Your task to perform on an android device: delete the emails in spam in the gmail app Image 0: 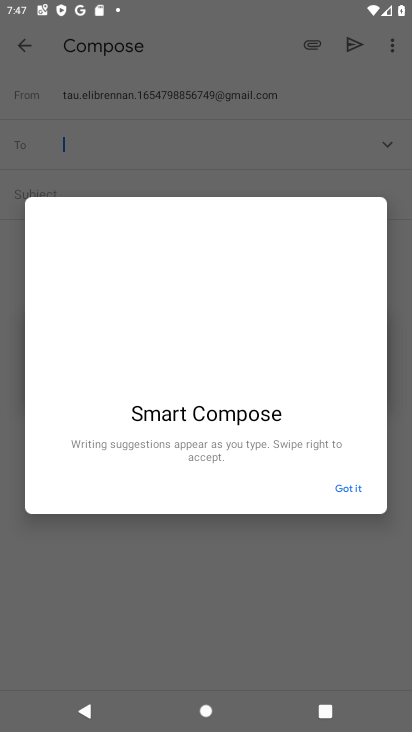
Step 0: click (163, 656)
Your task to perform on an android device: delete the emails in spam in the gmail app Image 1: 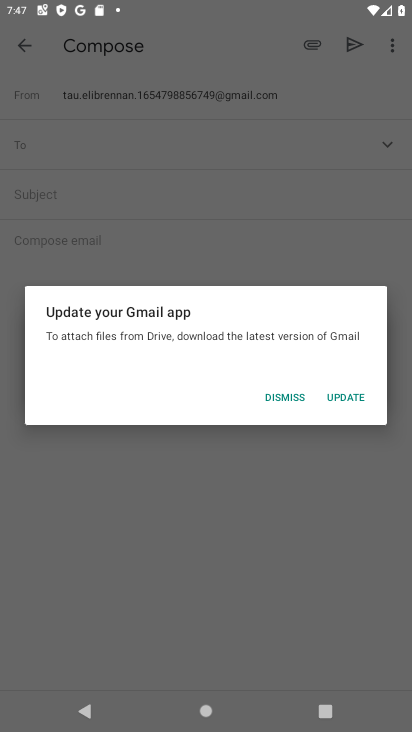
Step 1: press home button
Your task to perform on an android device: delete the emails in spam in the gmail app Image 2: 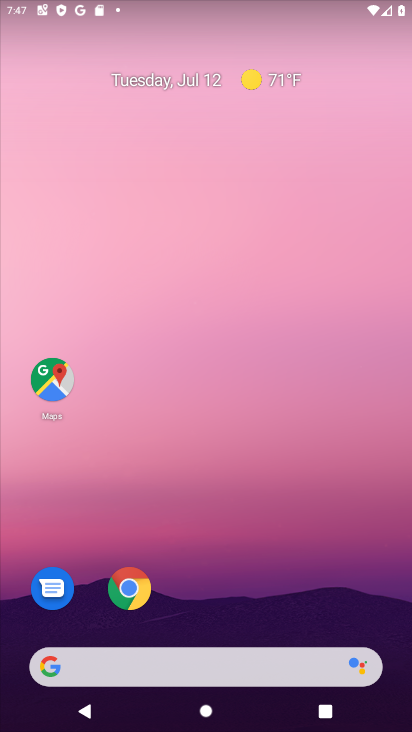
Step 2: drag from (56, 701) to (289, 14)
Your task to perform on an android device: delete the emails in spam in the gmail app Image 3: 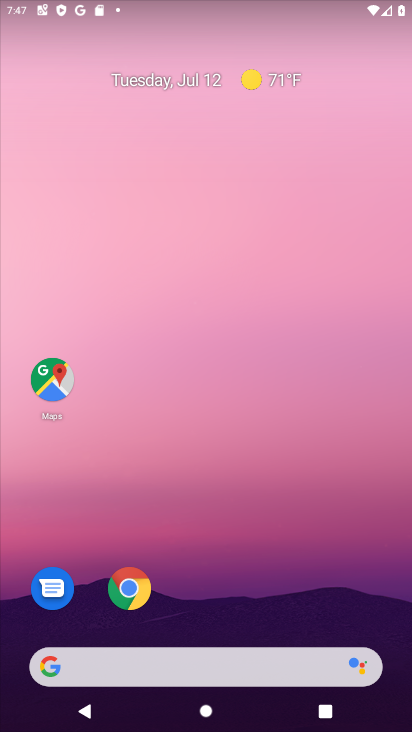
Step 3: drag from (98, 496) to (245, 64)
Your task to perform on an android device: delete the emails in spam in the gmail app Image 4: 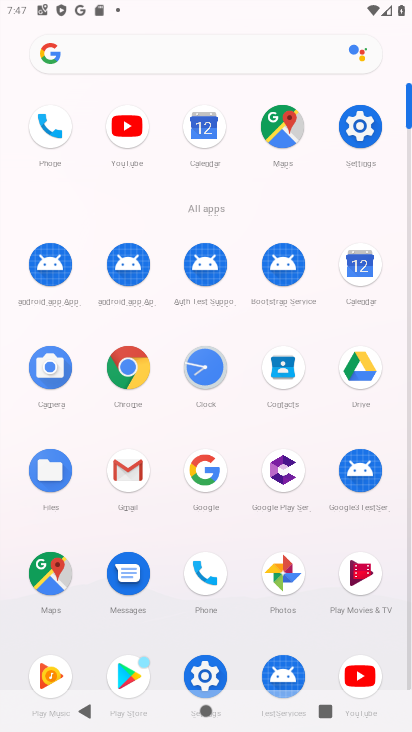
Step 4: click (110, 479)
Your task to perform on an android device: delete the emails in spam in the gmail app Image 5: 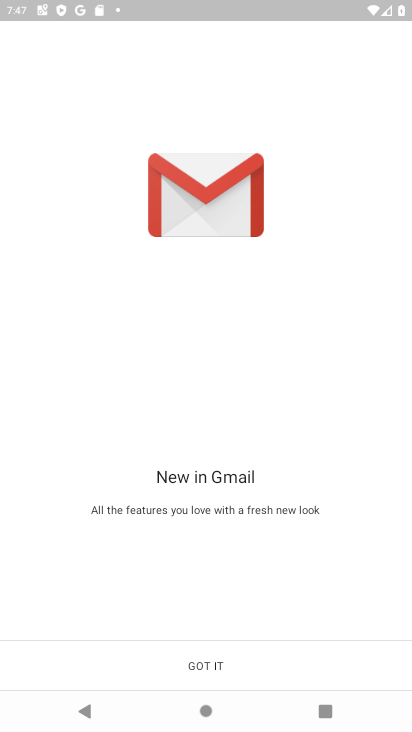
Step 5: click (195, 659)
Your task to perform on an android device: delete the emails in spam in the gmail app Image 6: 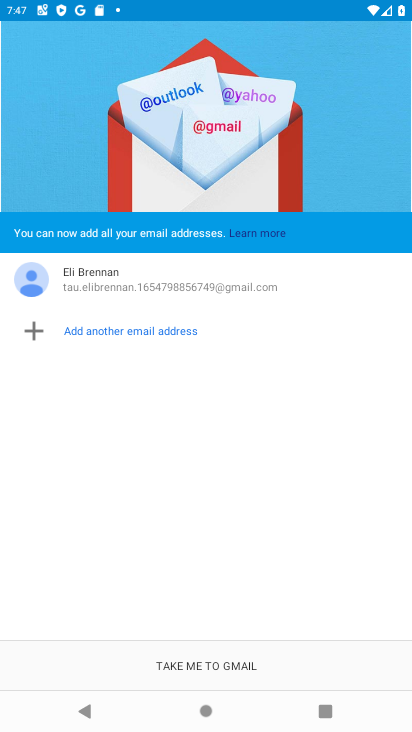
Step 6: click (196, 644)
Your task to perform on an android device: delete the emails in spam in the gmail app Image 7: 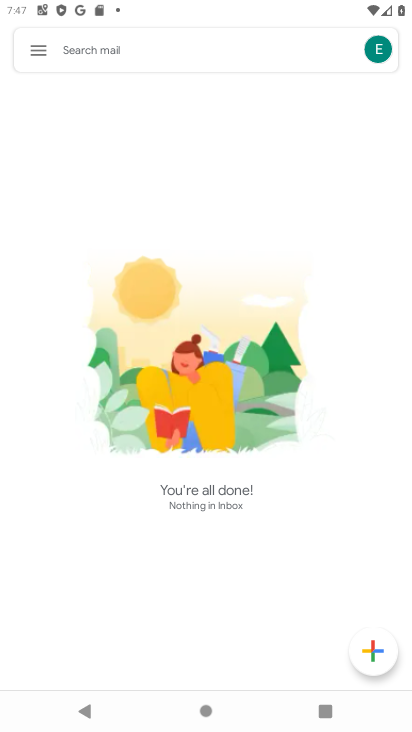
Step 7: click (37, 54)
Your task to perform on an android device: delete the emails in spam in the gmail app Image 8: 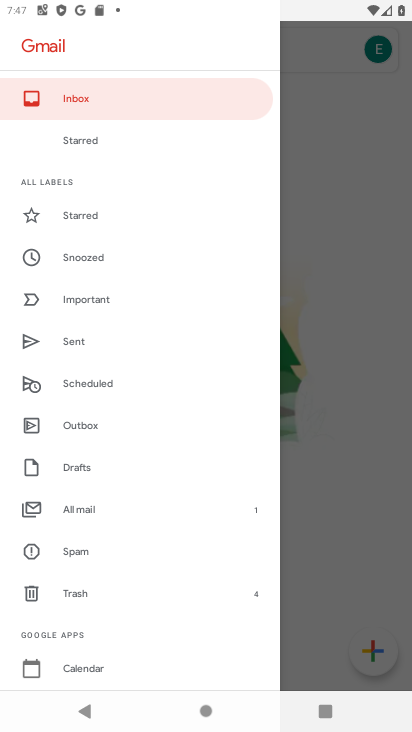
Step 8: click (80, 550)
Your task to perform on an android device: delete the emails in spam in the gmail app Image 9: 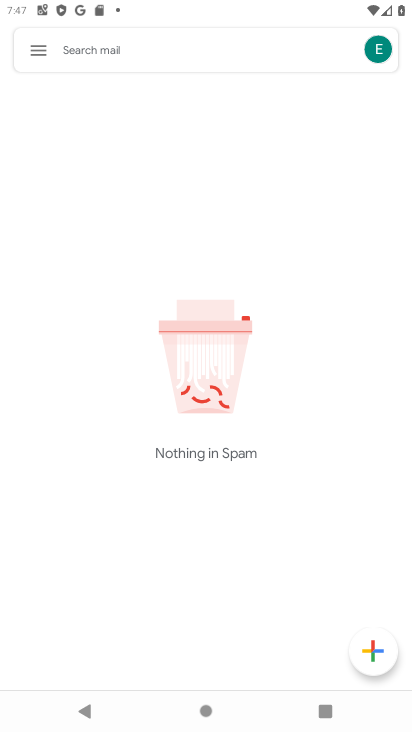
Step 9: task complete